Your task to perform on an android device: Open sound settings Image 0: 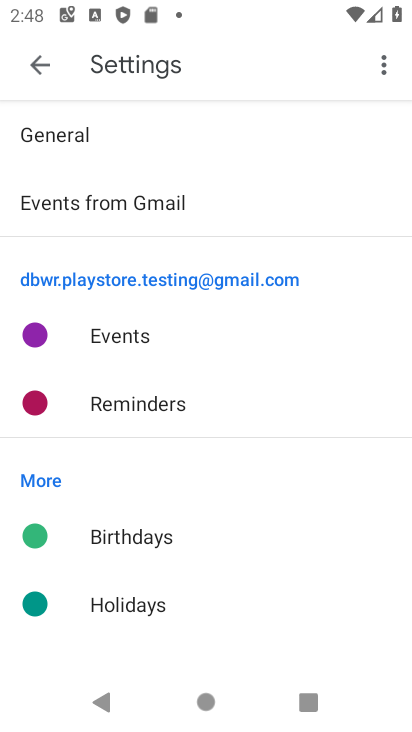
Step 0: press home button
Your task to perform on an android device: Open sound settings Image 1: 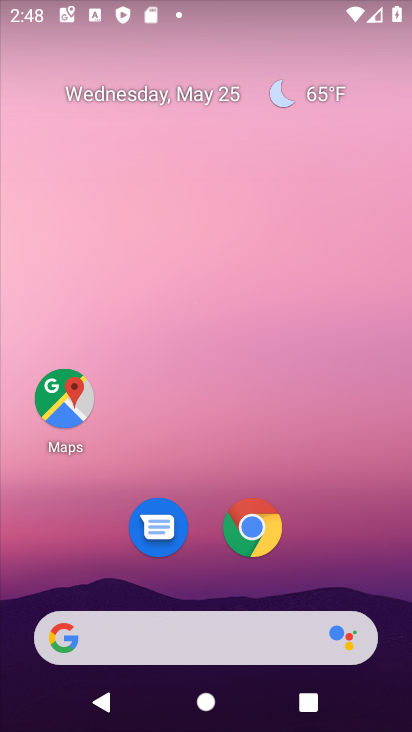
Step 1: drag from (138, 633) to (253, 93)
Your task to perform on an android device: Open sound settings Image 2: 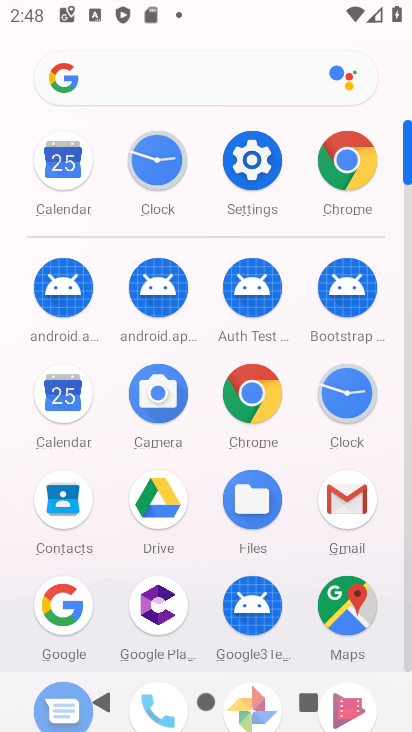
Step 2: click (246, 151)
Your task to perform on an android device: Open sound settings Image 3: 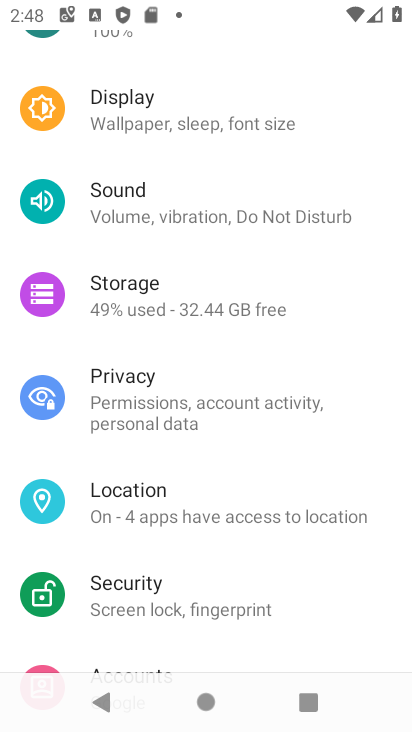
Step 3: click (169, 202)
Your task to perform on an android device: Open sound settings Image 4: 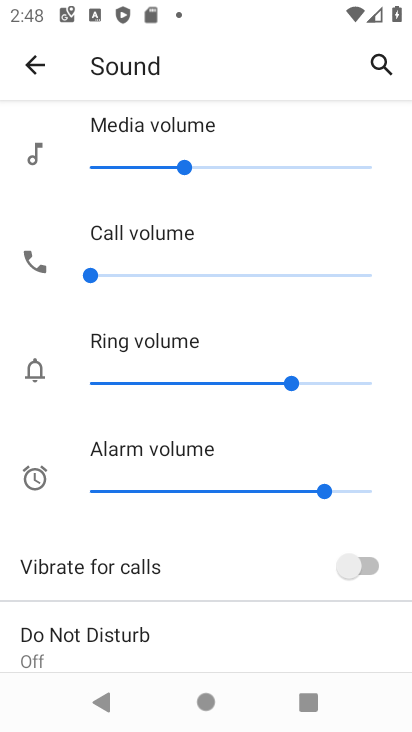
Step 4: task complete